Your task to perform on an android device: turn off picture-in-picture Image 0: 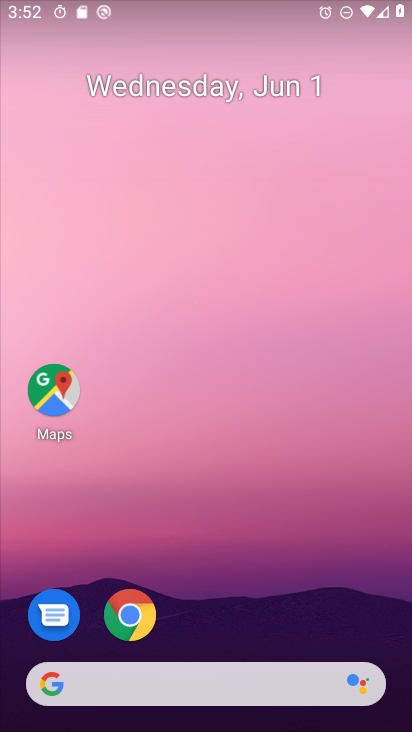
Step 0: drag from (269, 675) to (286, 4)
Your task to perform on an android device: turn off picture-in-picture Image 1: 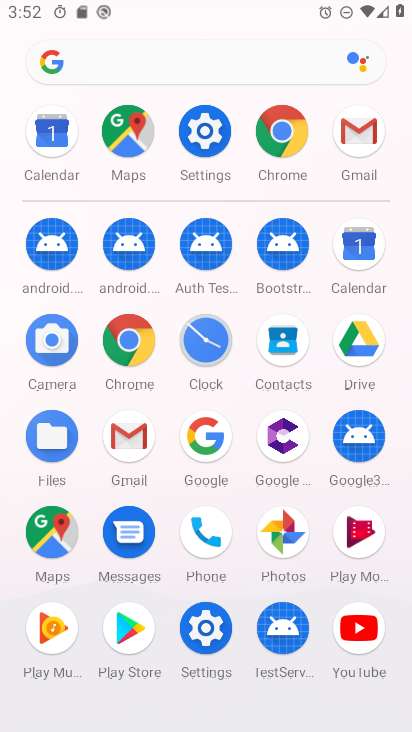
Step 1: click (201, 119)
Your task to perform on an android device: turn off picture-in-picture Image 2: 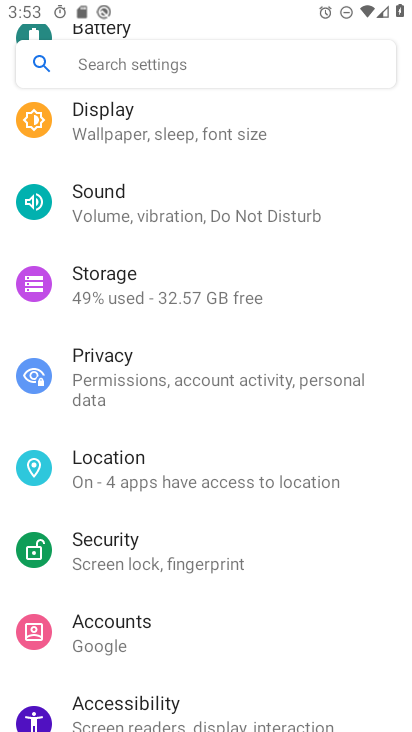
Step 2: drag from (158, 226) to (126, 669)
Your task to perform on an android device: turn off picture-in-picture Image 3: 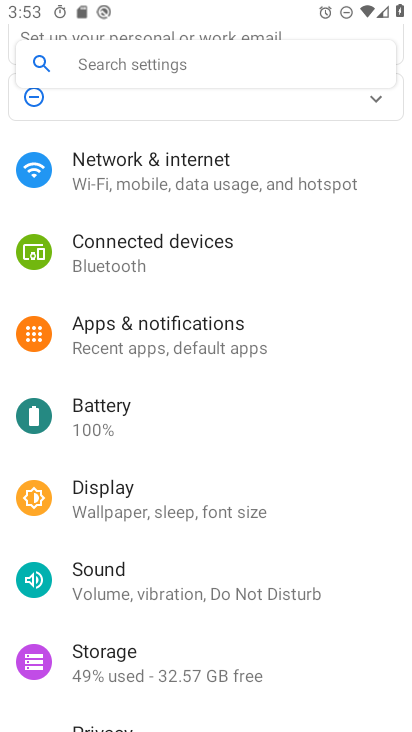
Step 3: click (189, 327)
Your task to perform on an android device: turn off picture-in-picture Image 4: 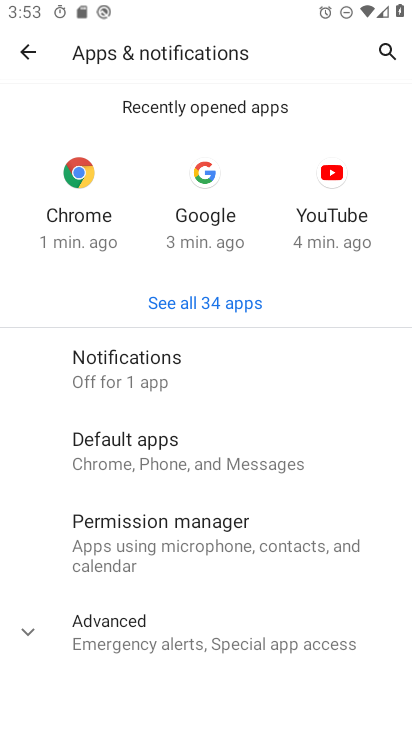
Step 4: click (158, 618)
Your task to perform on an android device: turn off picture-in-picture Image 5: 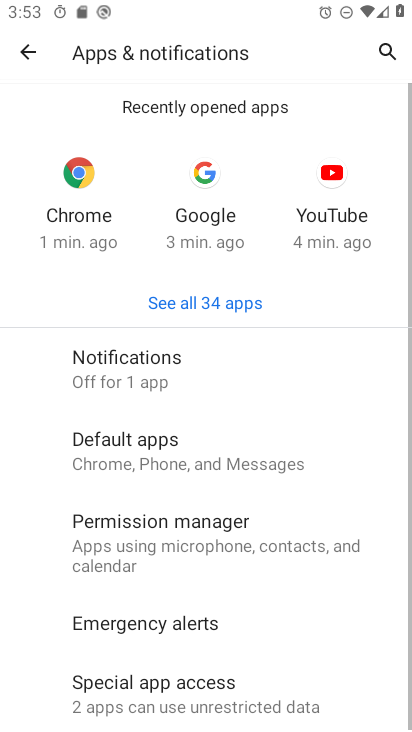
Step 5: click (172, 712)
Your task to perform on an android device: turn off picture-in-picture Image 6: 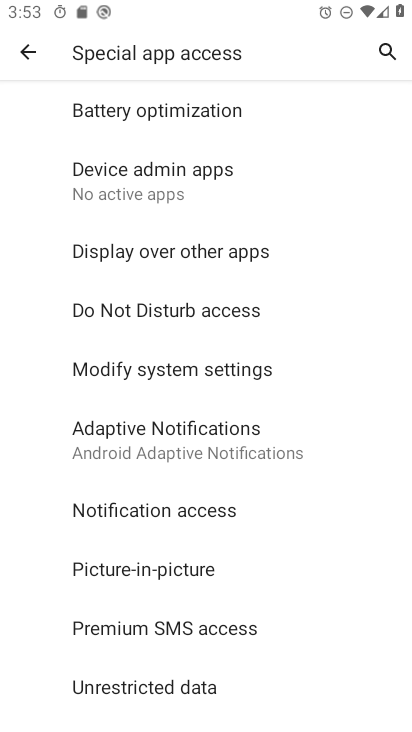
Step 6: click (208, 573)
Your task to perform on an android device: turn off picture-in-picture Image 7: 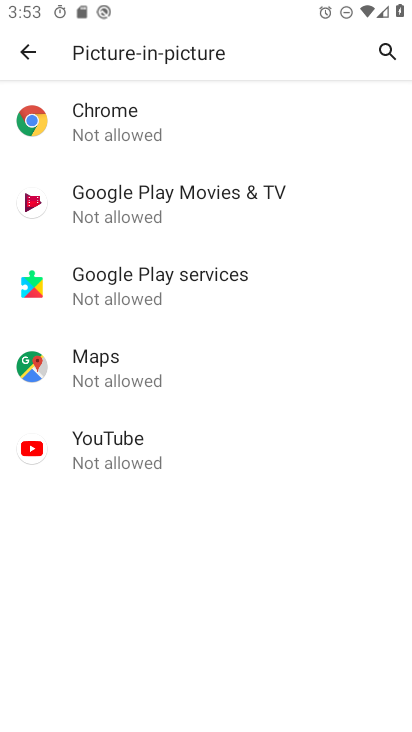
Step 7: task complete